Your task to perform on an android device: Go to Maps Image 0: 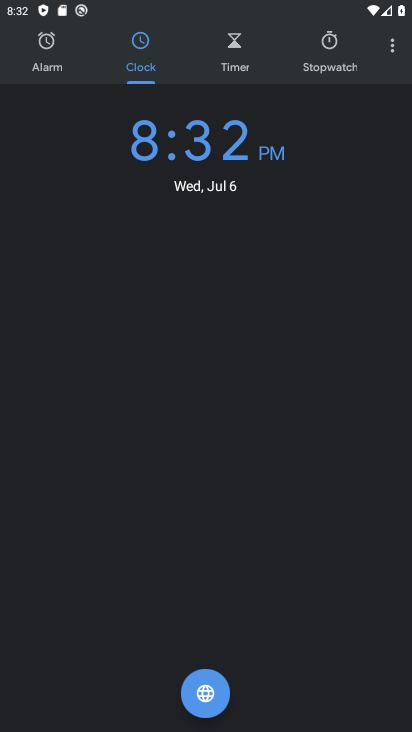
Step 0: press home button
Your task to perform on an android device: Go to Maps Image 1: 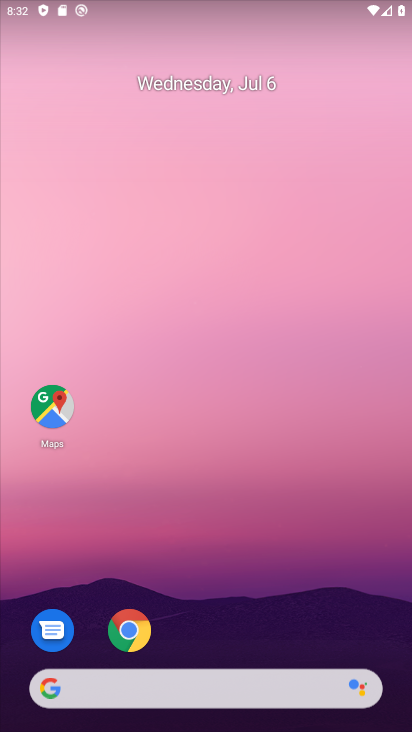
Step 1: drag from (193, 657) to (233, 104)
Your task to perform on an android device: Go to Maps Image 2: 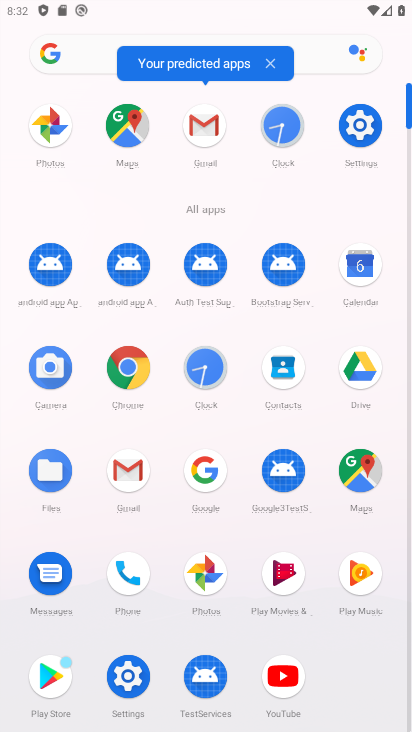
Step 2: click (363, 486)
Your task to perform on an android device: Go to Maps Image 3: 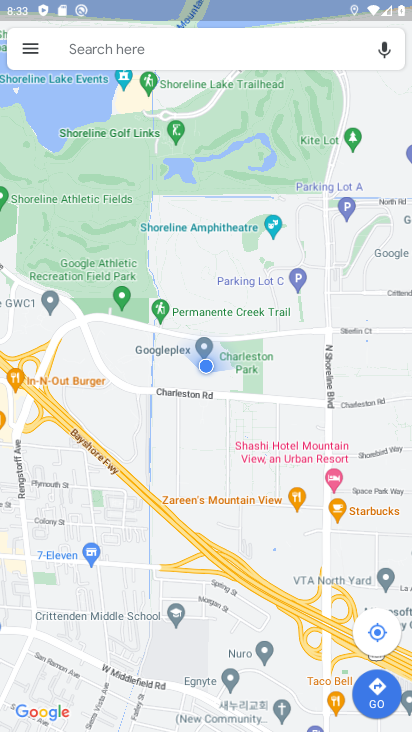
Step 3: task complete